Your task to perform on an android device: toggle pop-ups in chrome Image 0: 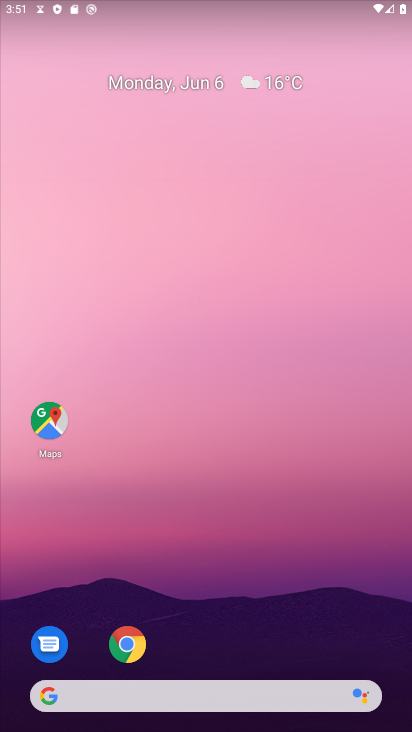
Step 0: click (135, 654)
Your task to perform on an android device: toggle pop-ups in chrome Image 1: 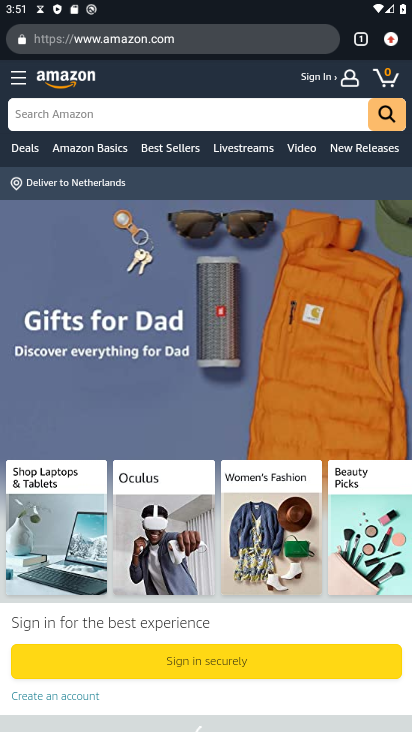
Step 1: click (389, 35)
Your task to perform on an android device: toggle pop-ups in chrome Image 2: 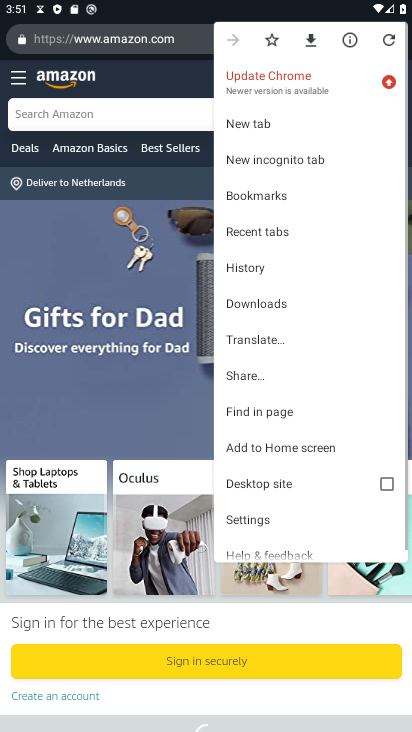
Step 2: click (263, 515)
Your task to perform on an android device: toggle pop-ups in chrome Image 3: 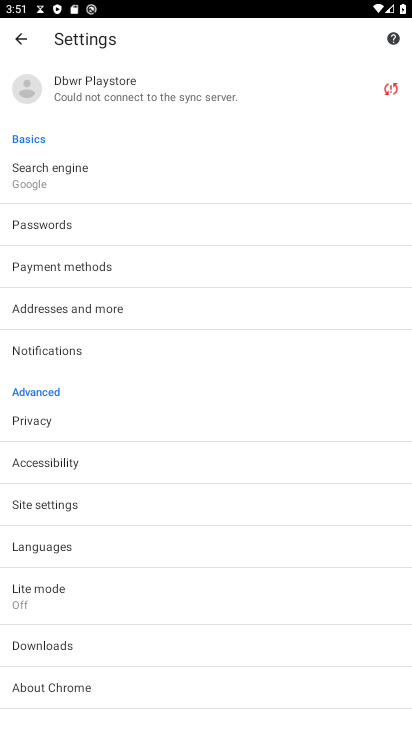
Step 3: click (39, 510)
Your task to perform on an android device: toggle pop-ups in chrome Image 4: 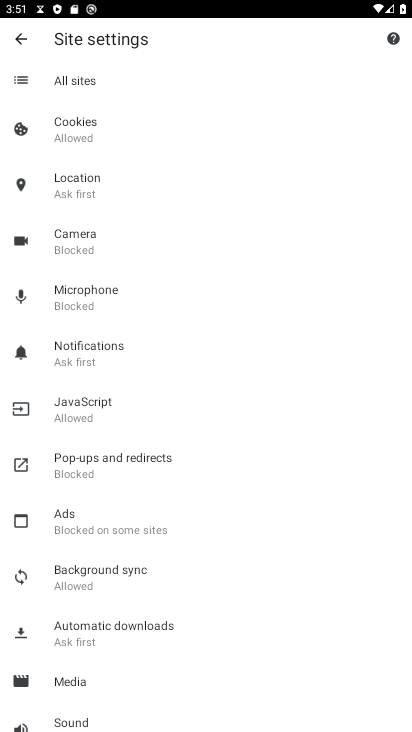
Step 4: click (67, 469)
Your task to perform on an android device: toggle pop-ups in chrome Image 5: 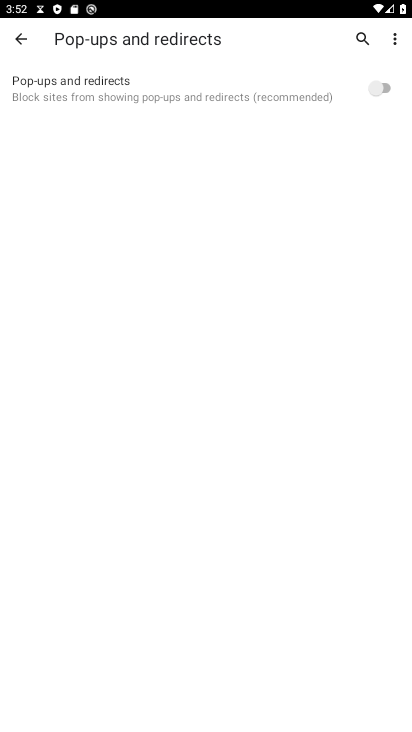
Step 5: click (377, 90)
Your task to perform on an android device: toggle pop-ups in chrome Image 6: 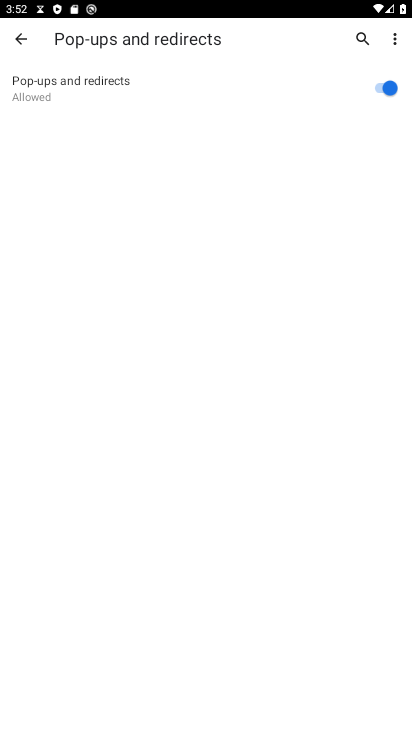
Step 6: task complete